Your task to perform on an android device: Open Youtube and go to "Your channel" Image 0: 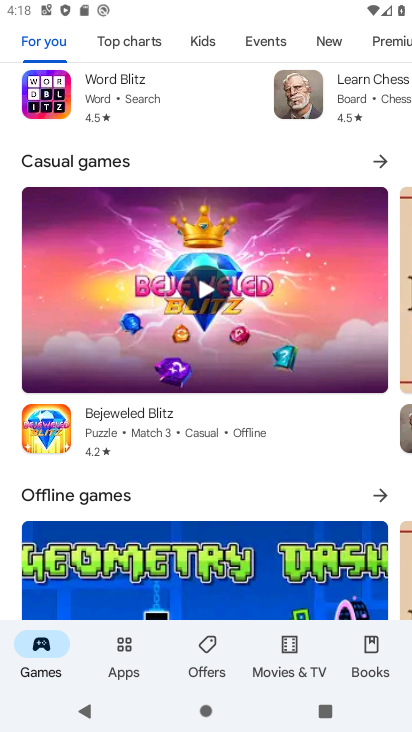
Step 0: press home button
Your task to perform on an android device: Open Youtube and go to "Your channel" Image 1: 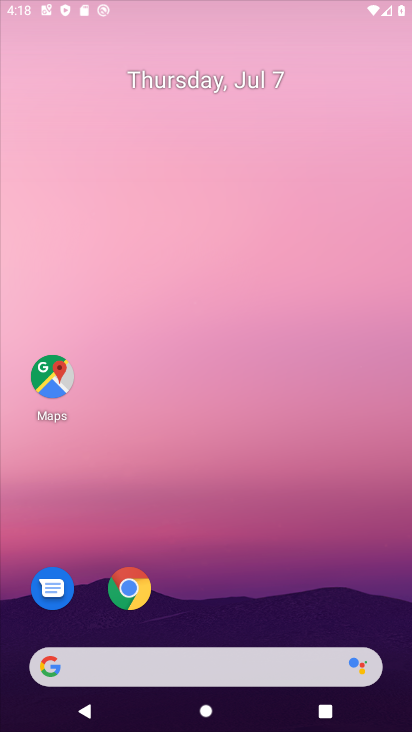
Step 1: drag from (278, 653) to (365, 9)
Your task to perform on an android device: Open Youtube and go to "Your channel" Image 2: 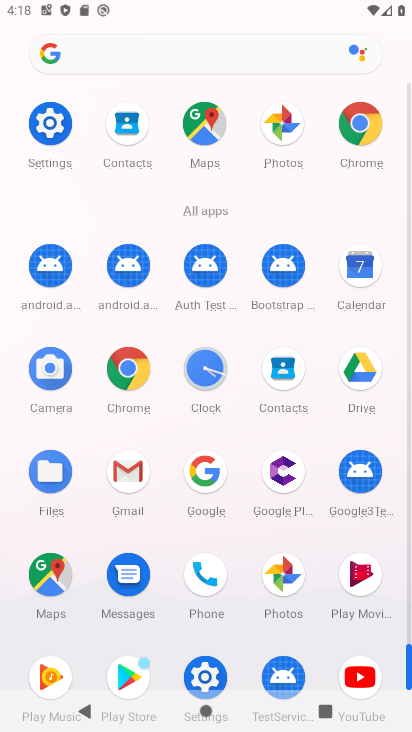
Step 2: click (352, 674)
Your task to perform on an android device: Open Youtube and go to "Your channel" Image 3: 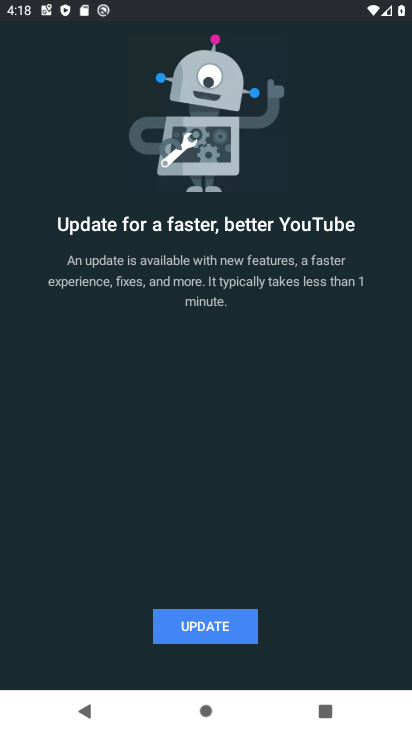
Step 3: click (192, 626)
Your task to perform on an android device: Open Youtube and go to "Your channel" Image 4: 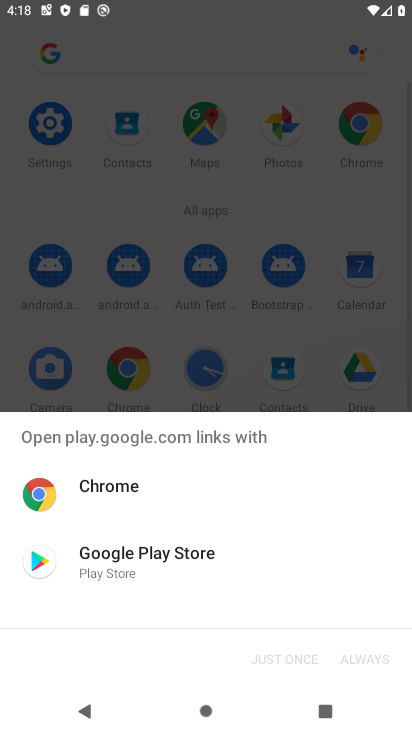
Step 4: click (99, 564)
Your task to perform on an android device: Open Youtube and go to "Your channel" Image 5: 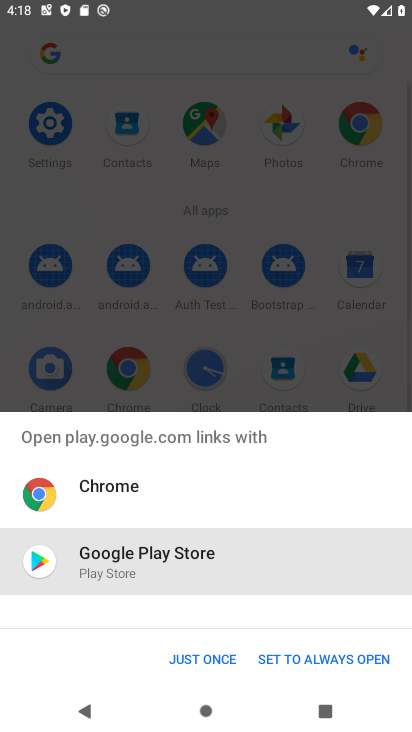
Step 5: drag from (214, 655) to (259, 655)
Your task to perform on an android device: Open Youtube and go to "Your channel" Image 6: 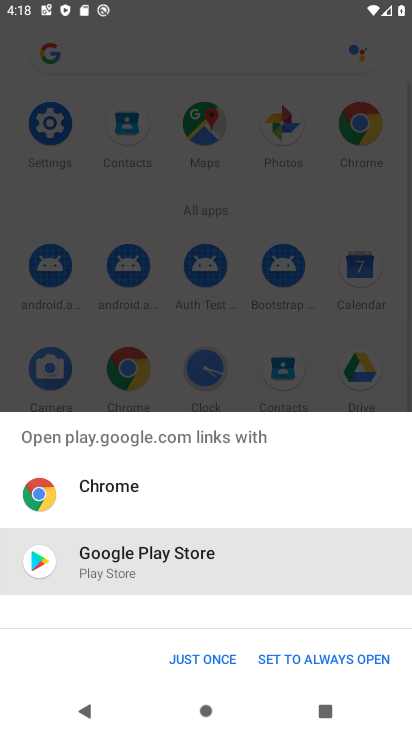
Step 6: click (203, 653)
Your task to perform on an android device: Open Youtube and go to "Your channel" Image 7: 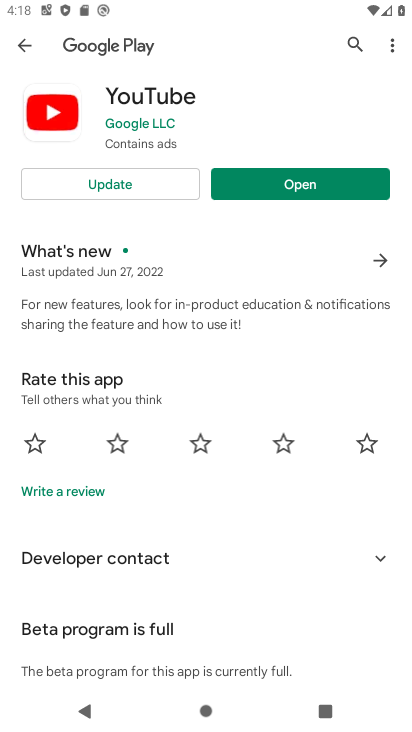
Step 7: click (168, 178)
Your task to perform on an android device: Open Youtube and go to "Your channel" Image 8: 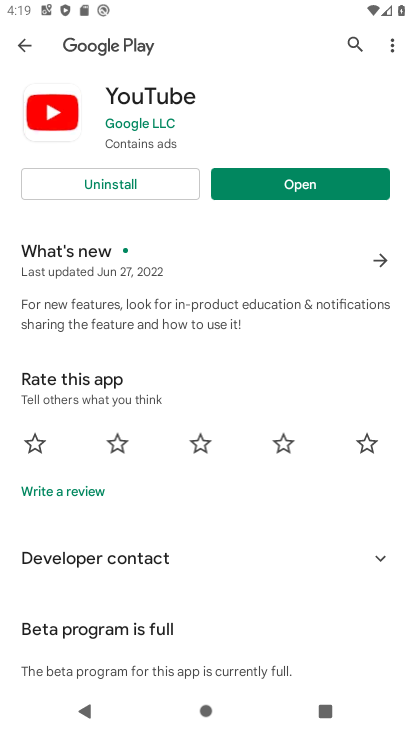
Step 8: click (259, 188)
Your task to perform on an android device: Open Youtube and go to "Your channel" Image 9: 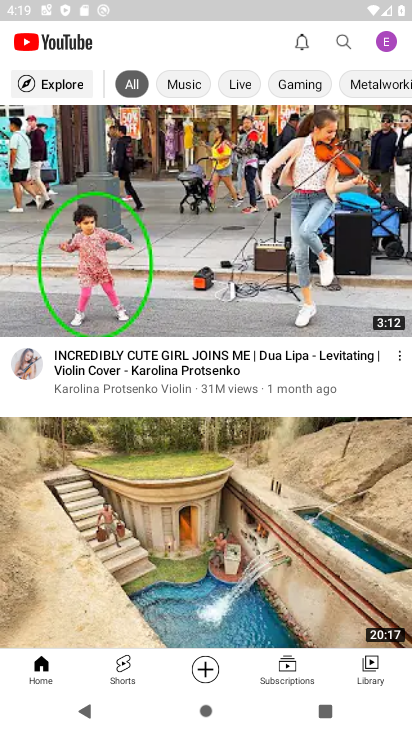
Step 9: click (395, 39)
Your task to perform on an android device: Open Youtube and go to "Your channel" Image 10: 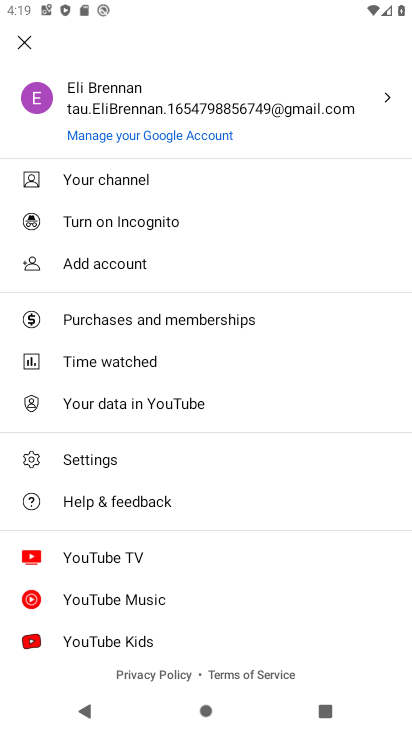
Step 10: click (147, 188)
Your task to perform on an android device: Open Youtube and go to "Your channel" Image 11: 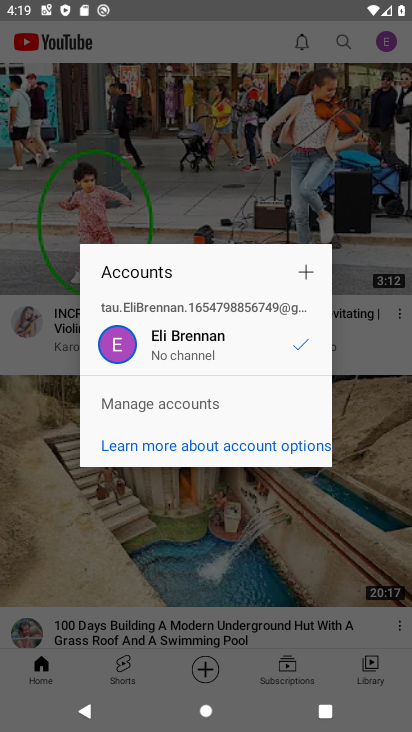
Step 11: task complete